Your task to perform on an android device: Open calendar and show me the third week of next month Image 0: 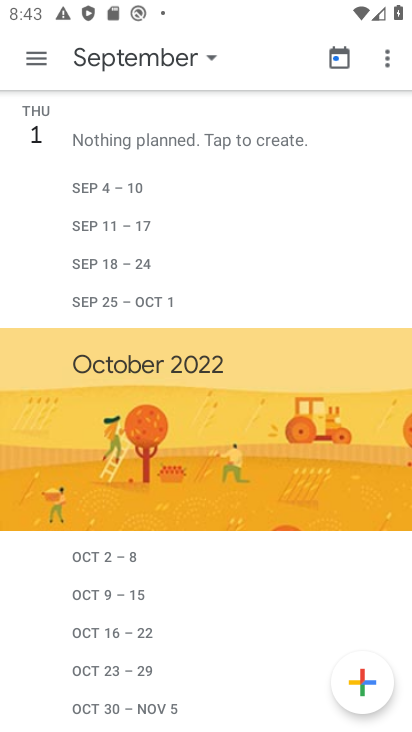
Step 0: press home button
Your task to perform on an android device: Open calendar and show me the third week of next month Image 1: 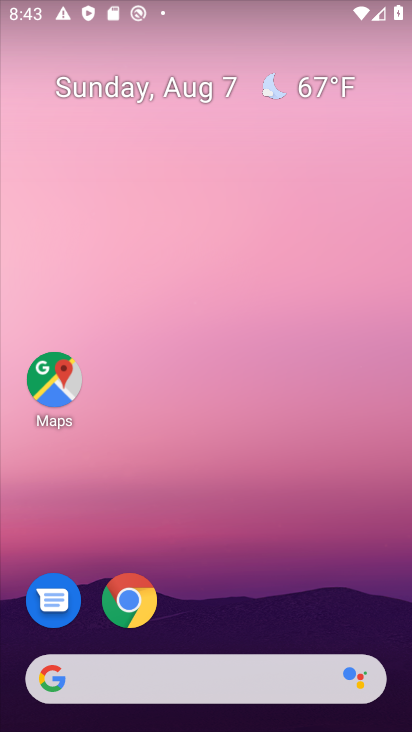
Step 1: drag from (202, 524) to (225, 128)
Your task to perform on an android device: Open calendar and show me the third week of next month Image 2: 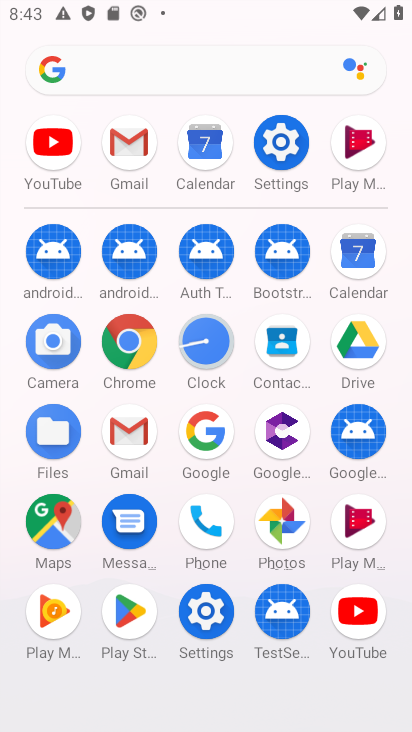
Step 2: click (350, 271)
Your task to perform on an android device: Open calendar and show me the third week of next month Image 3: 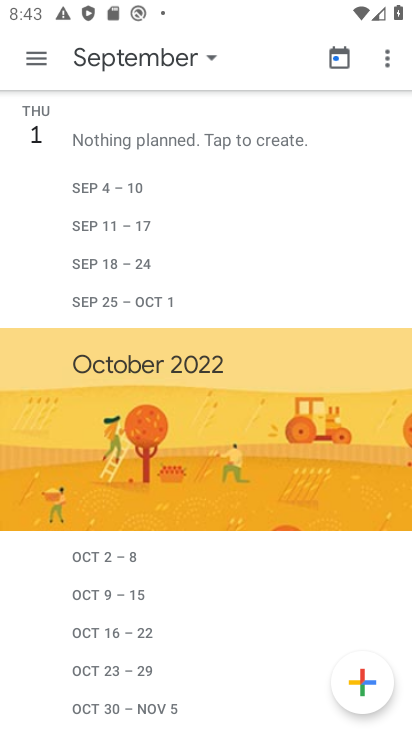
Step 3: click (30, 58)
Your task to perform on an android device: Open calendar and show me the third week of next month Image 4: 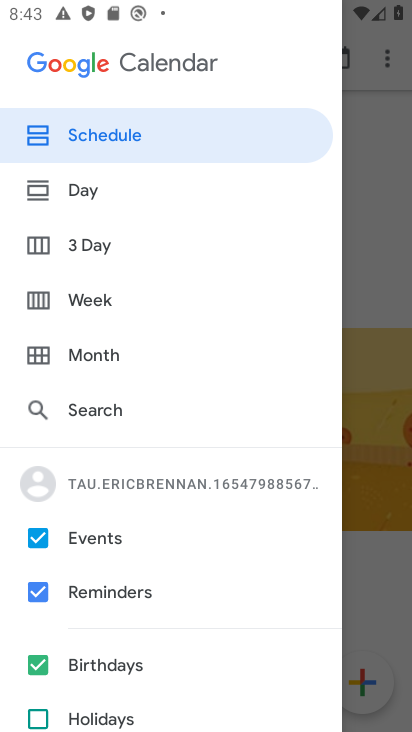
Step 4: click (71, 299)
Your task to perform on an android device: Open calendar and show me the third week of next month Image 5: 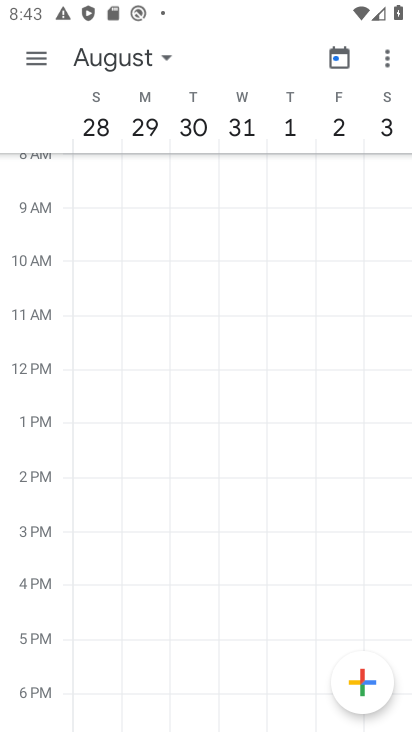
Step 5: click (130, 49)
Your task to perform on an android device: Open calendar and show me the third week of next month Image 6: 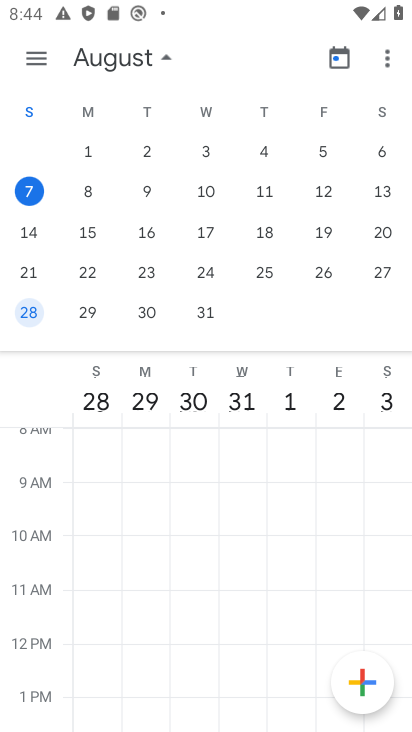
Step 6: drag from (346, 186) to (53, 190)
Your task to perform on an android device: Open calendar and show me the third week of next month Image 7: 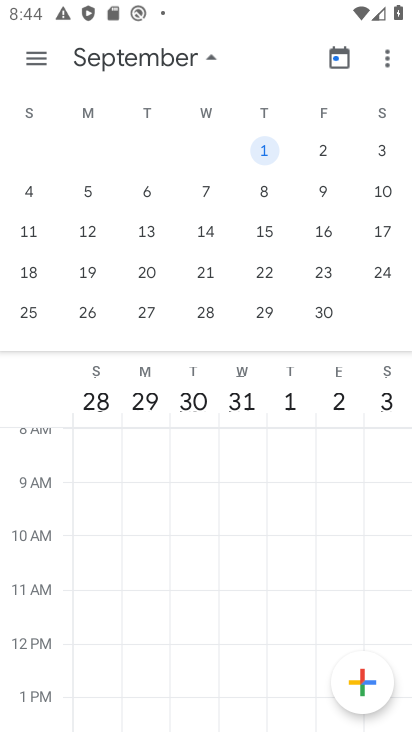
Step 7: click (26, 233)
Your task to perform on an android device: Open calendar and show me the third week of next month Image 8: 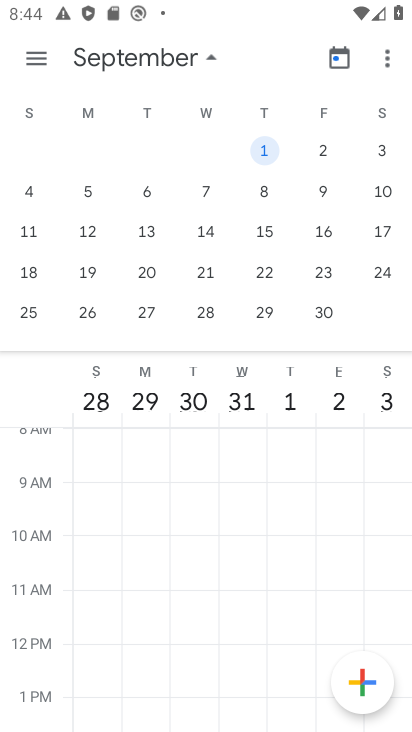
Step 8: click (26, 233)
Your task to perform on an android device: Open calendar and show me the third week of next month Image 9: 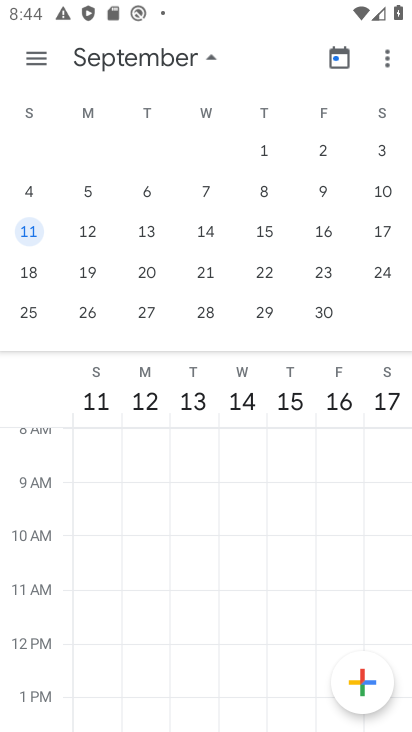
Step 9: task complete